Your task to perform on an android device: toggle notifications settings in the gmail app Image 0: 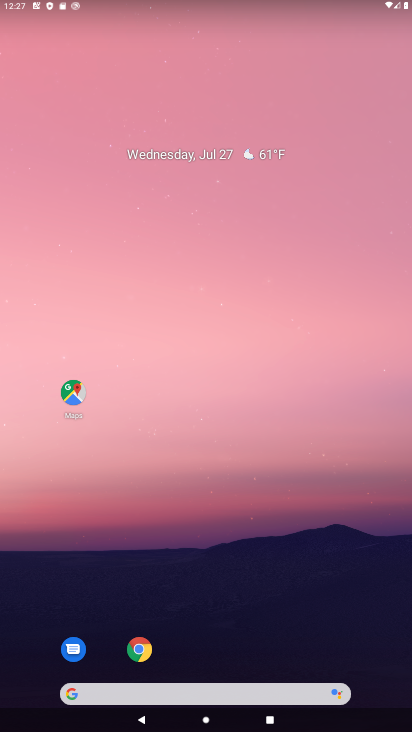
Step 0: drag from (280, 637) to (259, 61)
Your task to perform on an android device: toggle notifications settings in the gmail app Image 1: 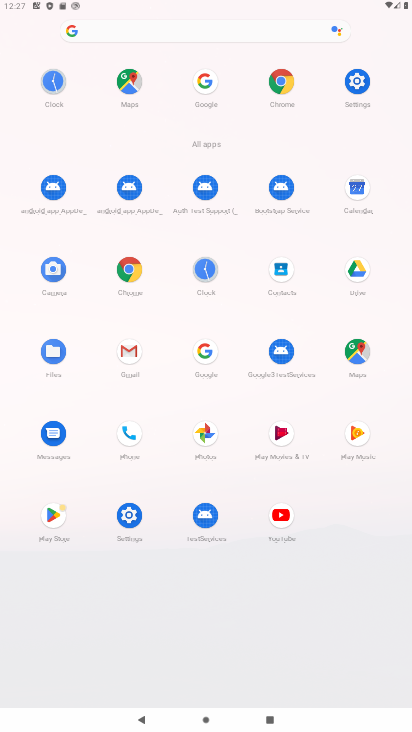
Step 1: click (123, 366)
Your task to perform on an android device: toggle notifications settings in the gmail app Image 2: 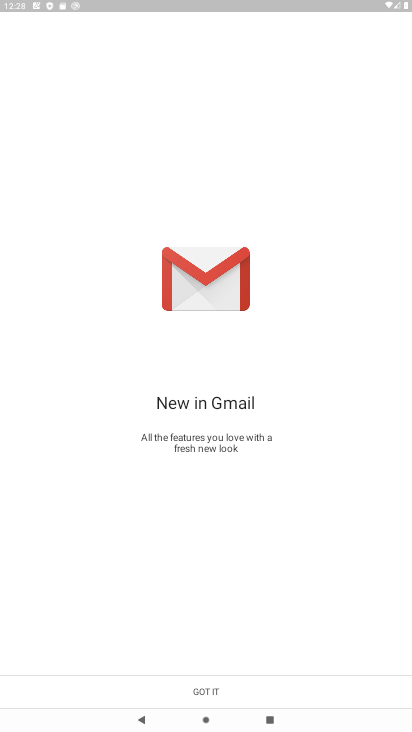
Step 2: click (210, 686)
Your task to perform on an android device: toggle notifications settings in the gmail app Image 3: 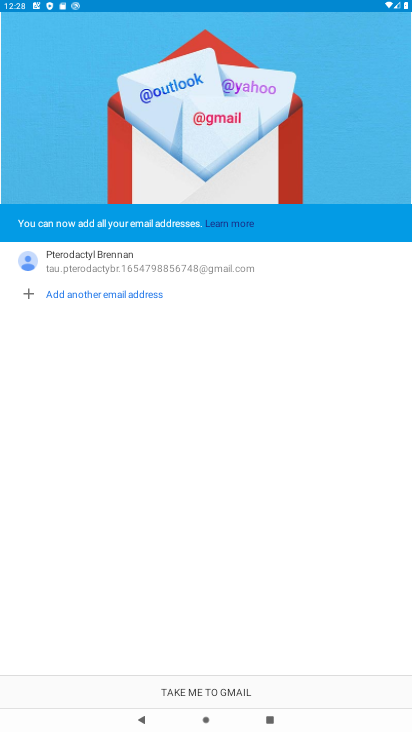
Step 3: click (210, 686)
Your task to perform on an android device: toggle notifications settings in the gmail app Image 4: 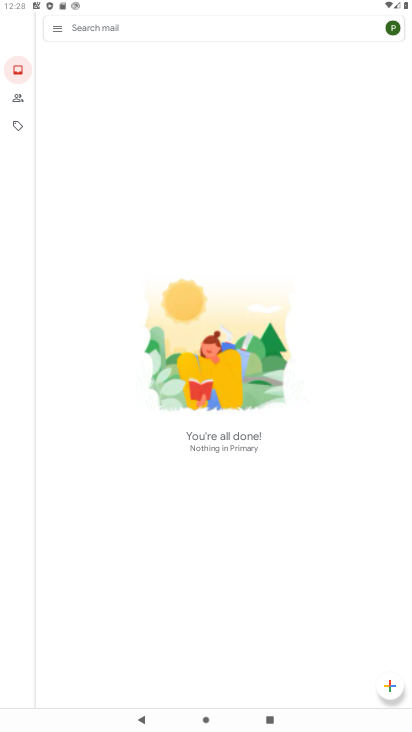
Step 4: click (55, 30)
Your task to perform on an android device: toggle notifications settings in the gmail app Image 5: 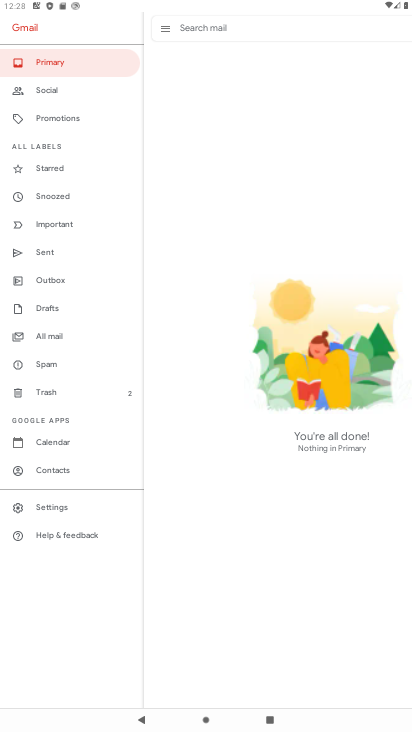
Step 5: click (46, 507)
Your task to perform on an android device: toggle notifications settings in the gmail app Image 6: 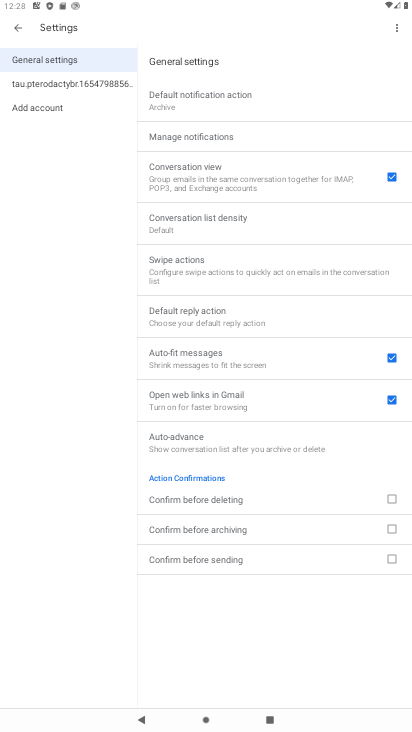
Step 6: click (101, 87)
Your task to perform on an android device: toggle notifications settings in the gmail app Image 7: 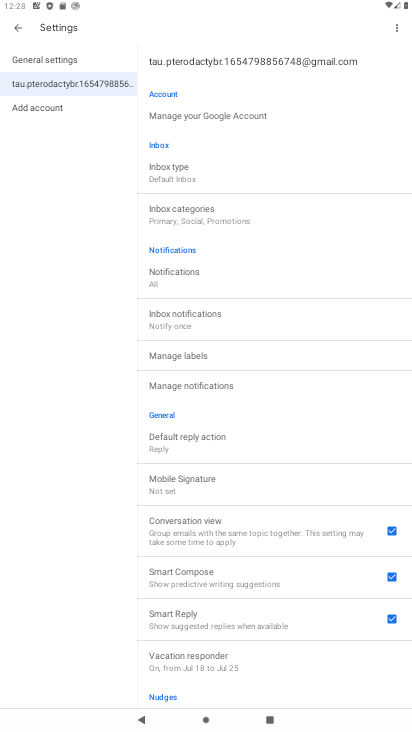
Step 7: click (190, 391)
Your task to perform on an android device: toggle notifications settings in the gmail app Image 8: 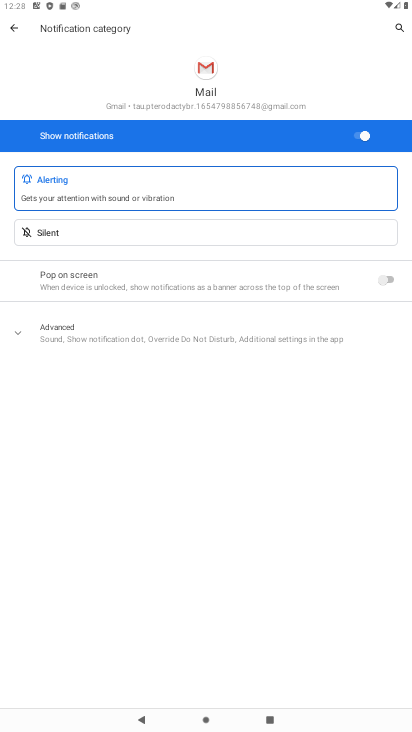
Step 8: click (240, 230)
Your task to perform on an android device: toggle notifications settings in the gmail app Image 9: 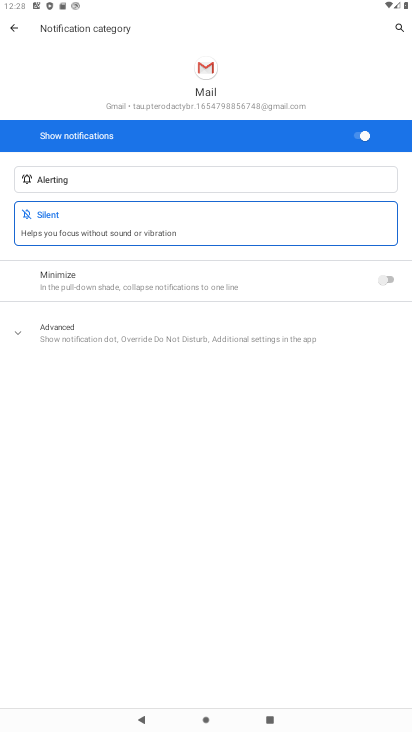
Step 9: click (366, 286)
Your task to perform on an android device: toggle notifications settings in the gmail app Image 10: 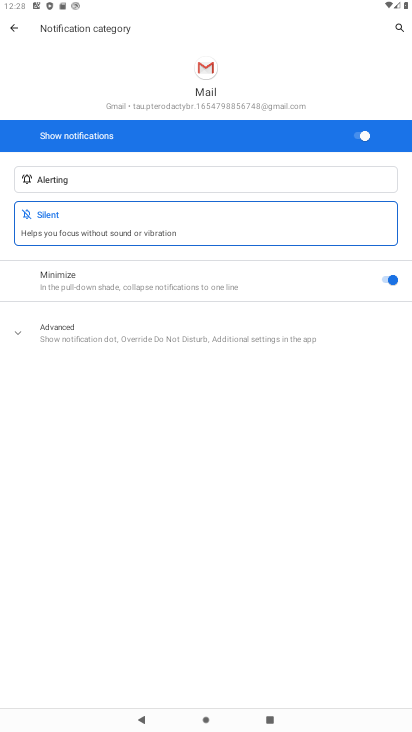
Step 10: task complete